Your task to perform on an android device: turn off priority inbox in the gmail app Image 0: 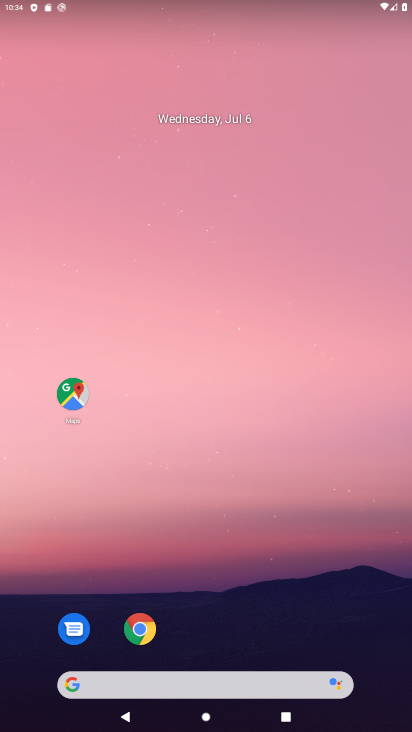
Step 0: drag from (213, 634) to (196, 61)
Your task to perform on an android device: turn off priority inbox in the gmail app Image 1: 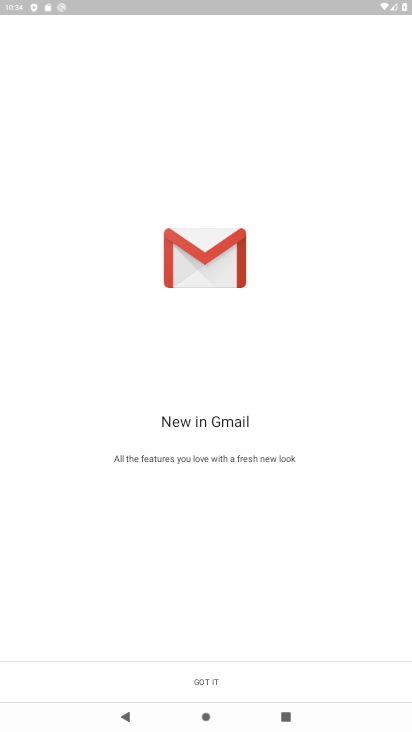
Step 1: click (215, 674)
Your task to perform on an android device: turn off priority inbox in the gmail app Image 2: 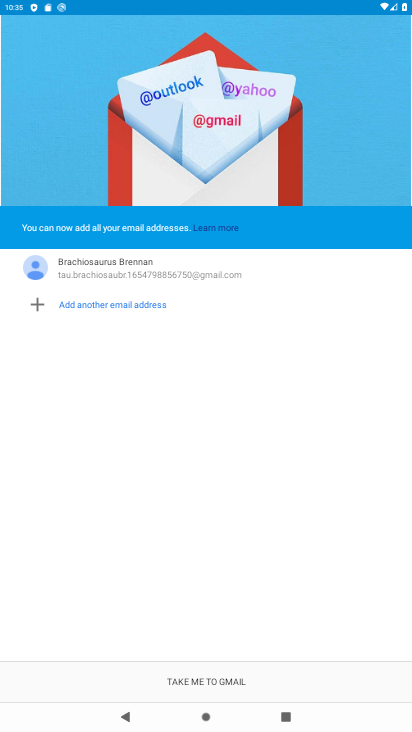
Step 2: click (215, 674)
Your task to perform on an android device: turn off priority inbox in the gmail app Image 3: 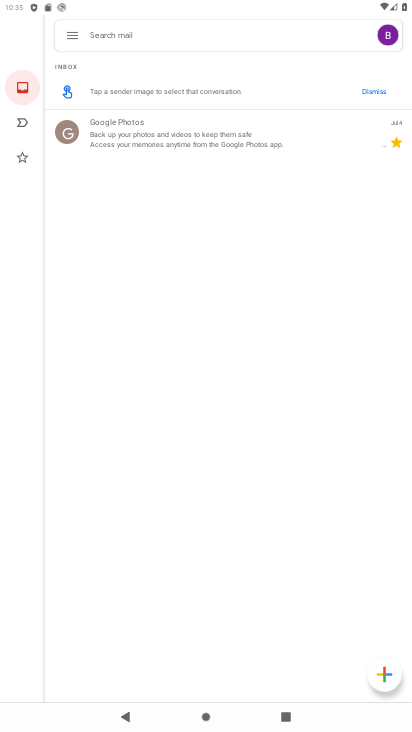
Step 3: click (69, 36)
Your task to perform on an android device: turn off priority inbox in the gmail app Image 4: 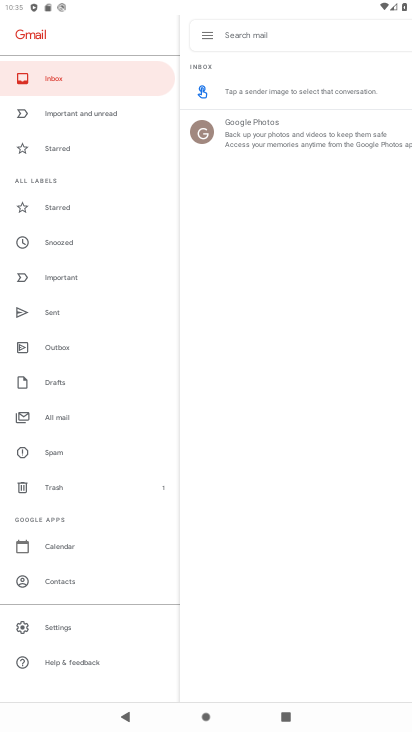
Step 4: click (74, 628)
Your task to perform on an android device: turn off priority inbox in the gmail app Image 5: 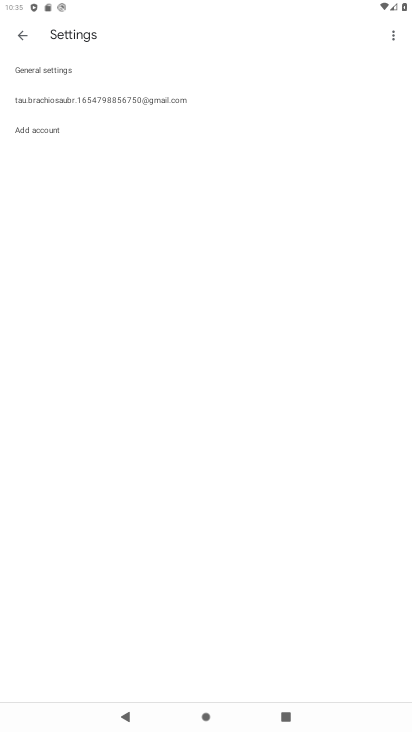
Step 5: click (159, 99)
Your task to perform on an android device: turn off priority inbox in the gmail app Image 6: 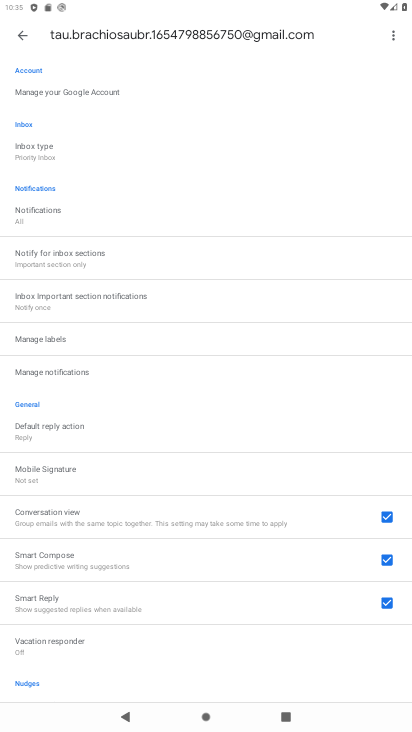
Step 6: click (65, 155)
Your task to perform on an android device: turn off priority inbox in the gmail app Image 7: 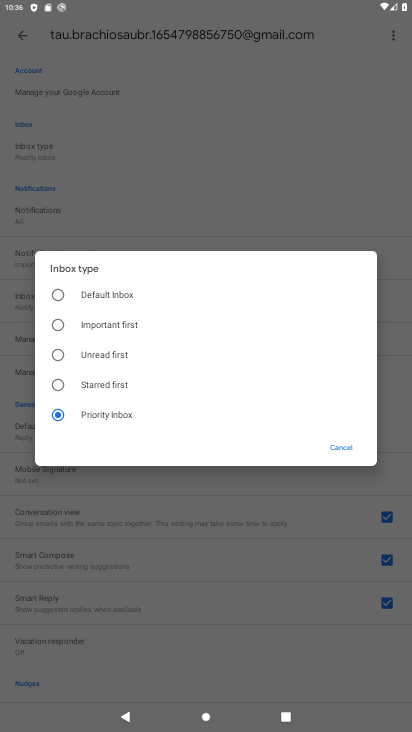
Step 7: click (52, 290)
Your task to perform on an android device: turn off priority inbox in the gmail app Image 8: 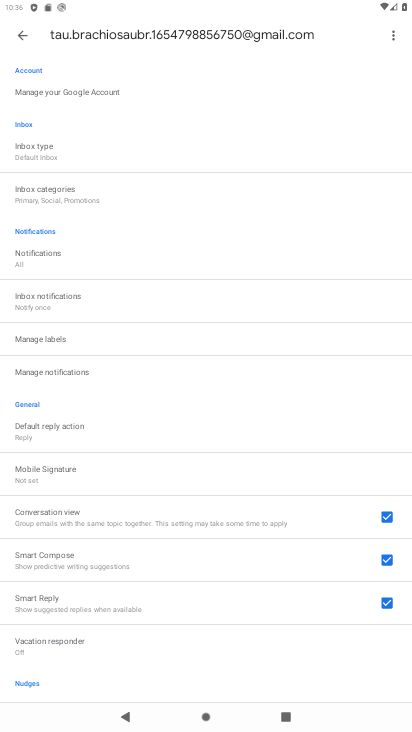
Step 8: task complete